Your task to perform on an android device: Go to battery settings Image 0: 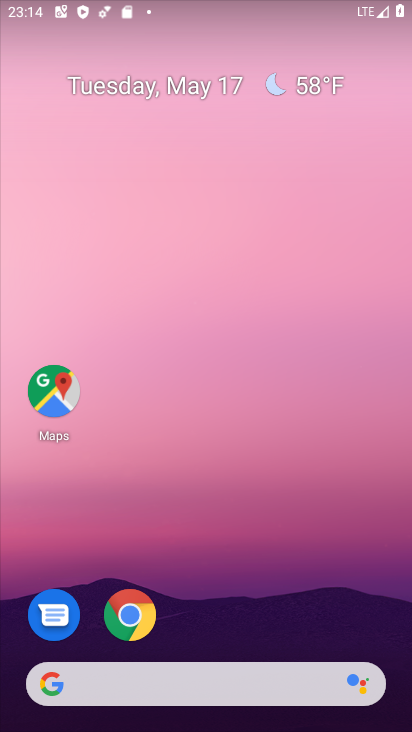
Step 0: drag from (223, 613) to (206, 244)
Your task to perform on an android device: Go to battery settings Image 1: 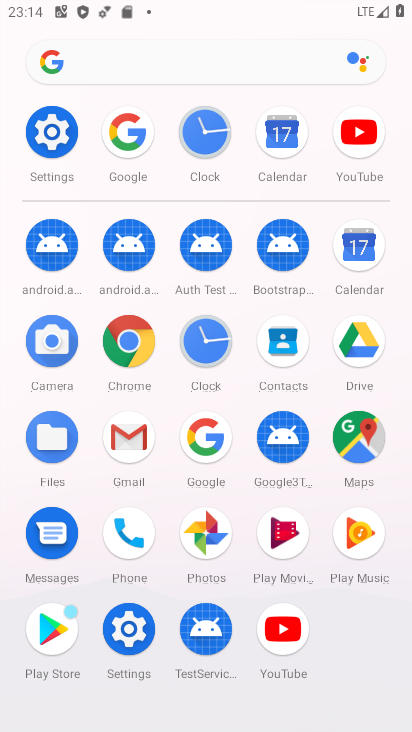
Step 1: click (72, 139)
Your task to perform on an android device: Go to battery settings Image 2: 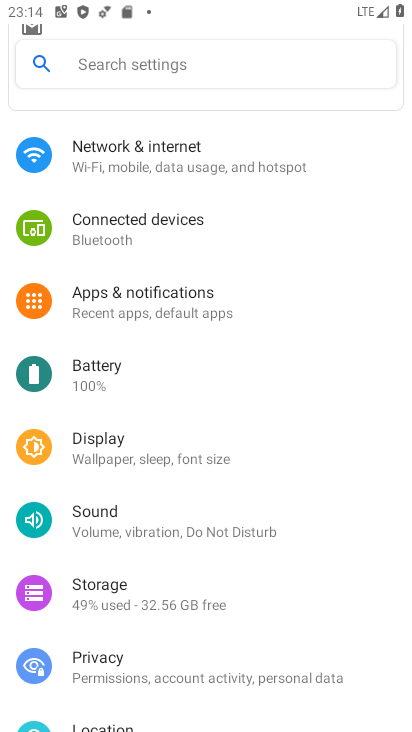
Step 2: click (145, 363)
Your task to perform on an android device: Go to battery settings Image 3: 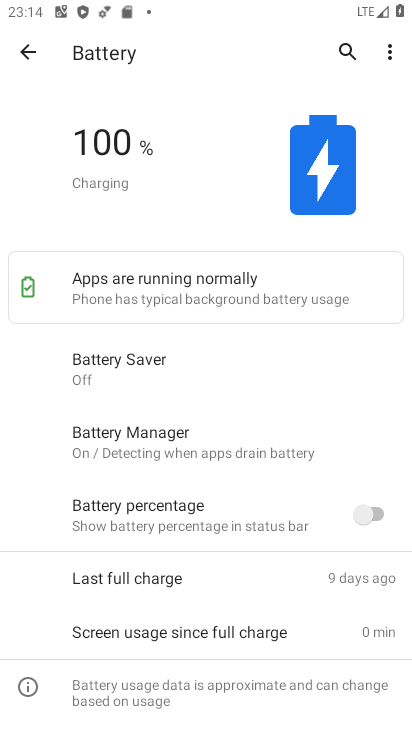
Step 3: task complete